Your task to perform on an android device: Go to network settings Image 0: 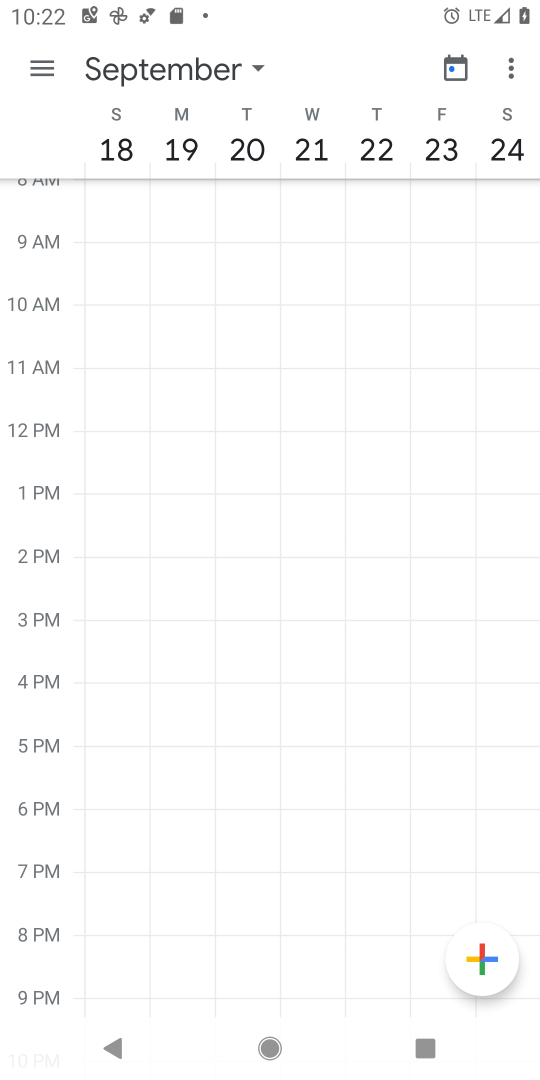
Step 0: press home button
Your task to perform on an android device: Go to network settings Image 1: 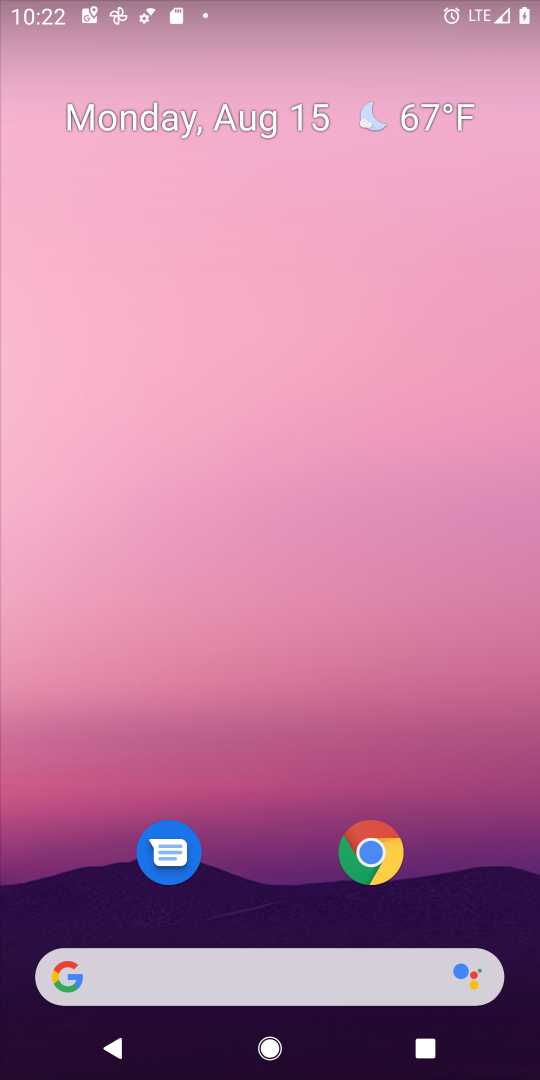
Step 1: drag from (289, 961) to (316, 0)
Your task to perform on an android device: Go to network settings Image 2: 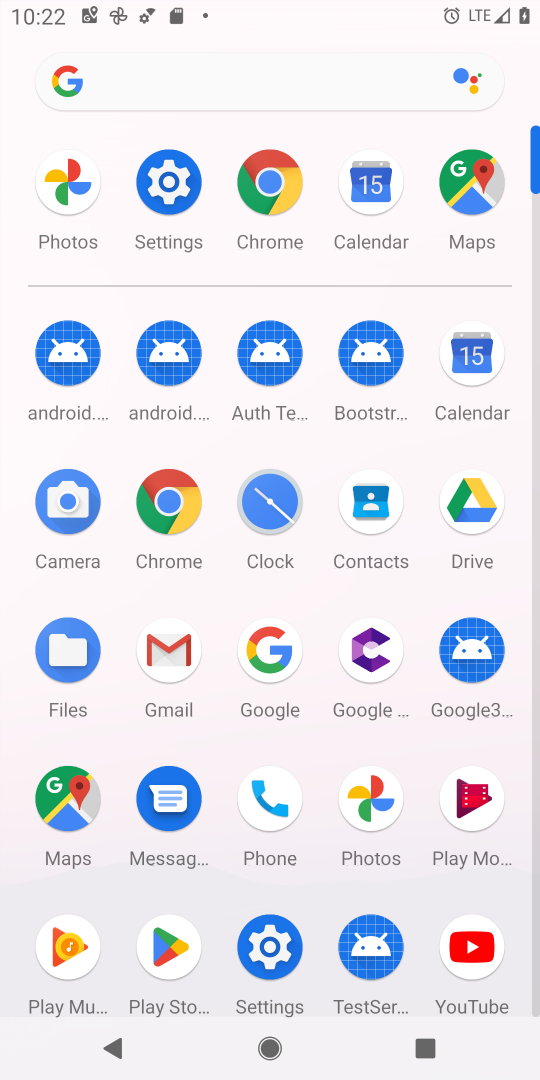
Step 2: click (168, 181)
Your task to perform on an android device: Go to network settings Image 3: 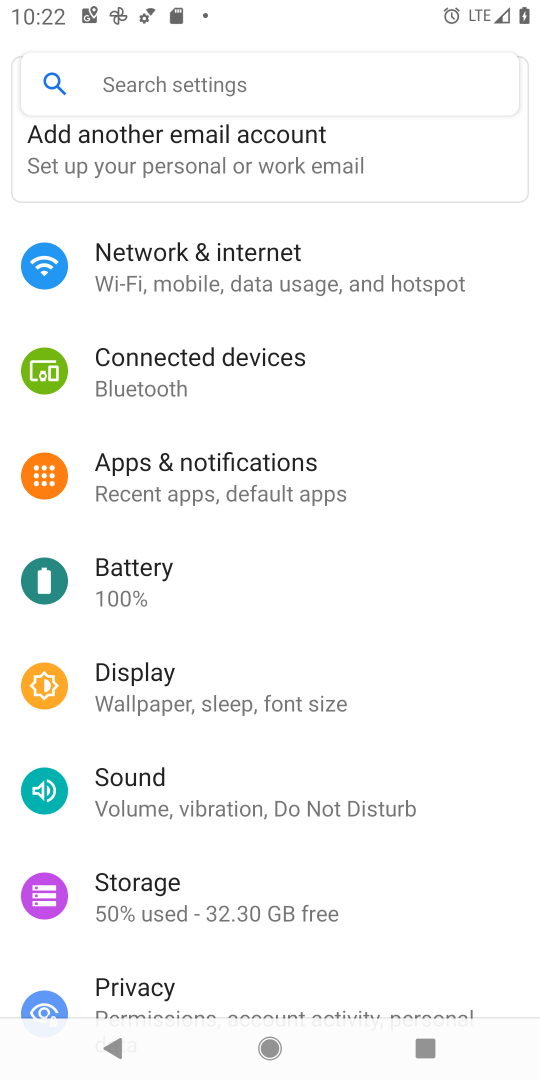
Step 3: click (205, 289)
Your task to perform on an android device: Go to network settings Image 4: 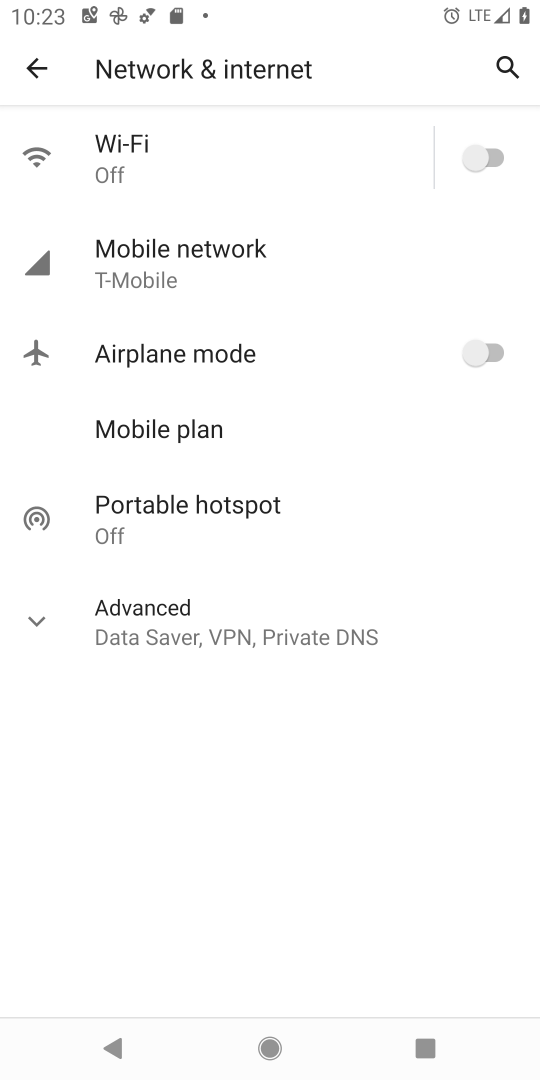
Step 4: click (178, 251)
Your task to perform on an android device: Go to network settings Image 5: 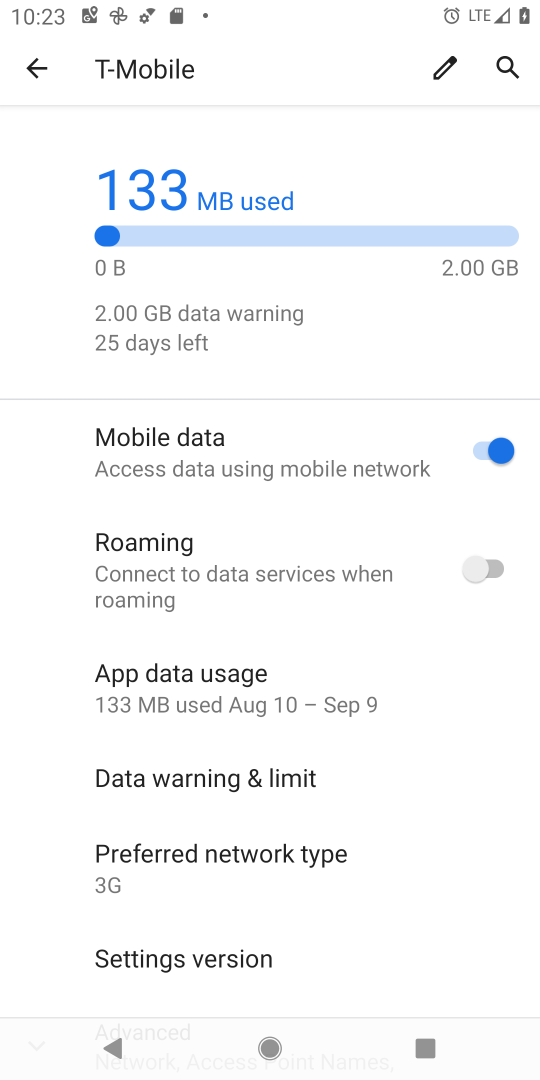
Step 5: task complete